Your task to perform on an android device: visit the assistant section in the google photos Image 0: 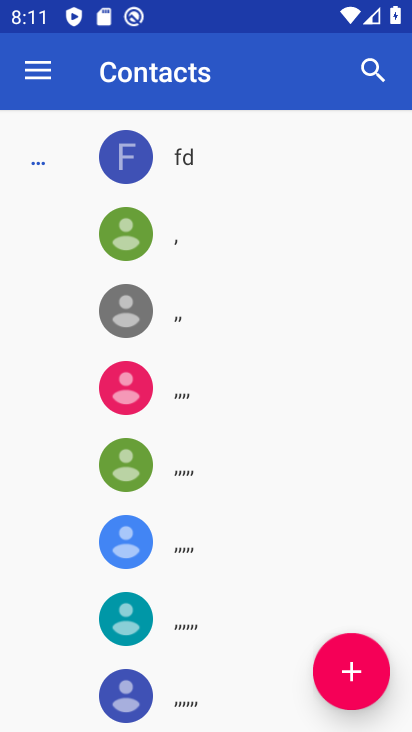
Step 0: press home button
Your task to perform on an android device: visit the assistant section in the google photos Image 1: 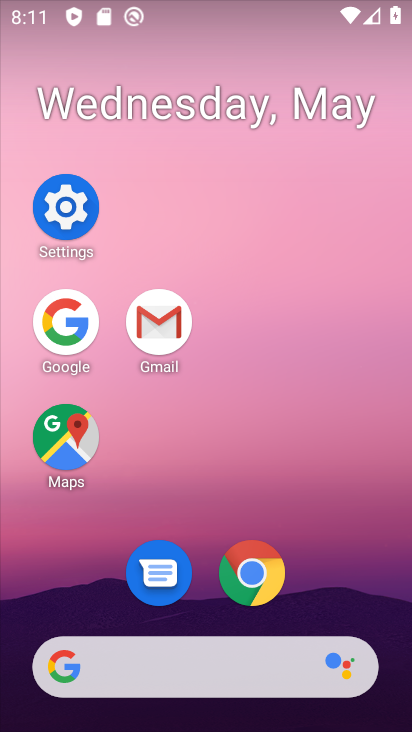
Step 1: drag from (308, 515) to (279, 176)
Your task to perform on an android device: visit the assistant section in the google photos Image 2: 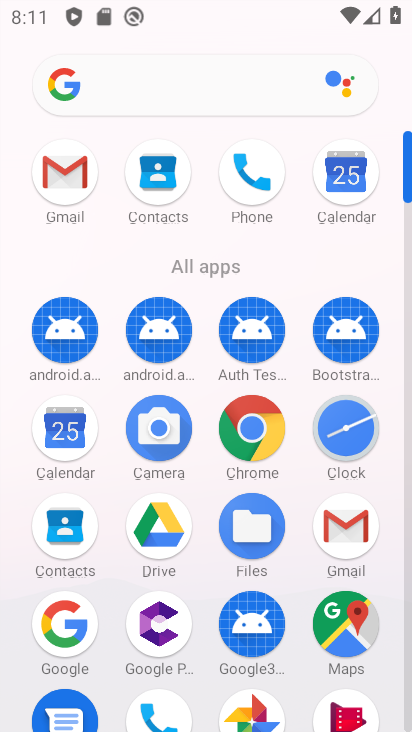
Step 2: drag from (277, 554) to (295, 206)
Your task to perform on an android device: visit the assistant section in the google photos Image 3: 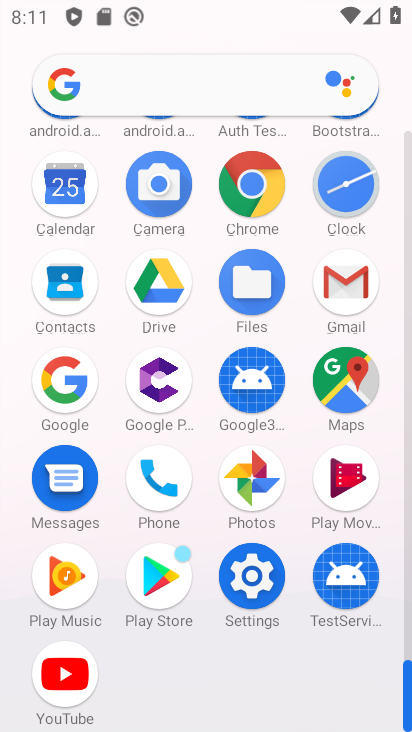
Step 3: drag from (262, 482) to (153, 376)
Your task to perform on an android device: visit the assistant section in the google photos Image 4: 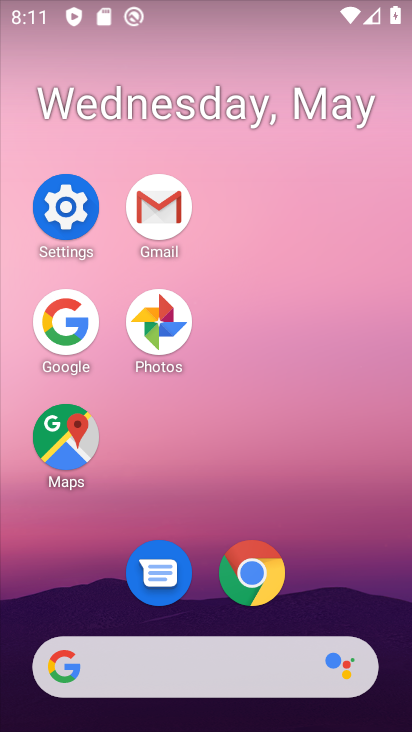
Step 4: click (174, 332)
Your task to perform on an android device: visit the assistant section in the google photos Image 5: 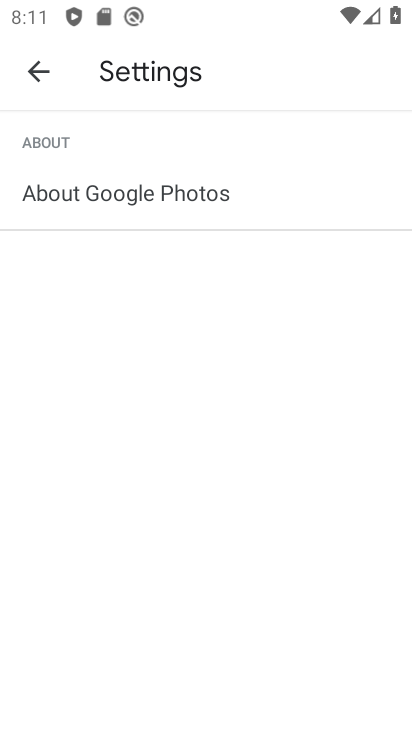
Step 5: click (28, 76)
Your task to perform on an android device: visit the assistant section in the google photos Image 6: 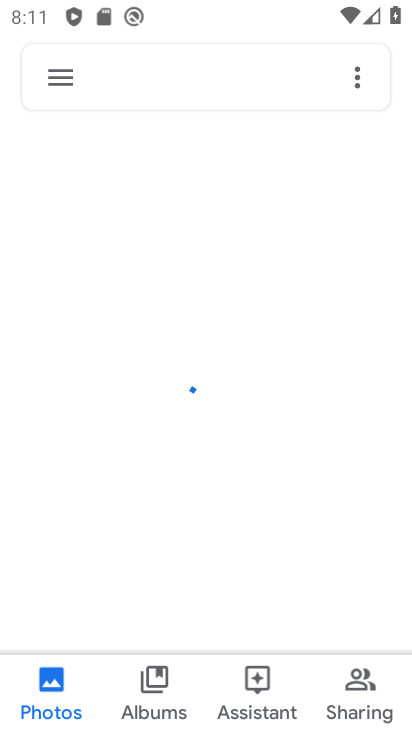
Step 6: click (270, 690)
Your task to perform on an android device: visit the assistant section in the google photos Image 7: 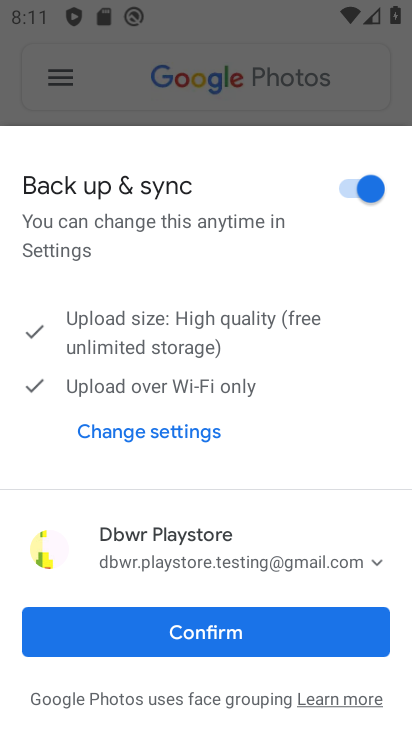
Step 7: click (205, 641)
Your task to perform on an android device: visit the assistant section in the google photos Image 8: 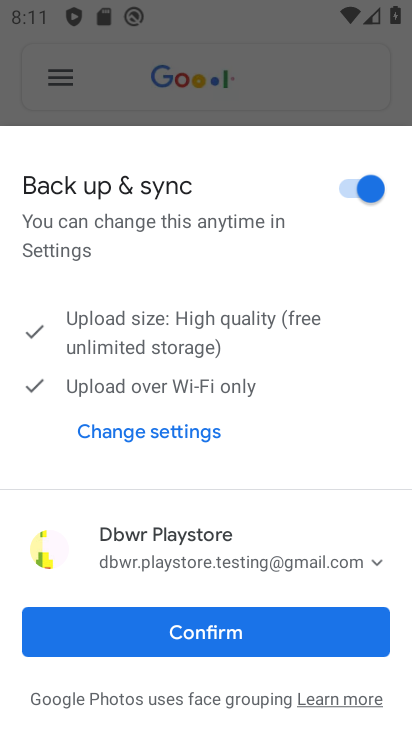
Step 8: click (329, 646)
Your task to perform on an android device: visit the assistant section in the google photos Image 9: 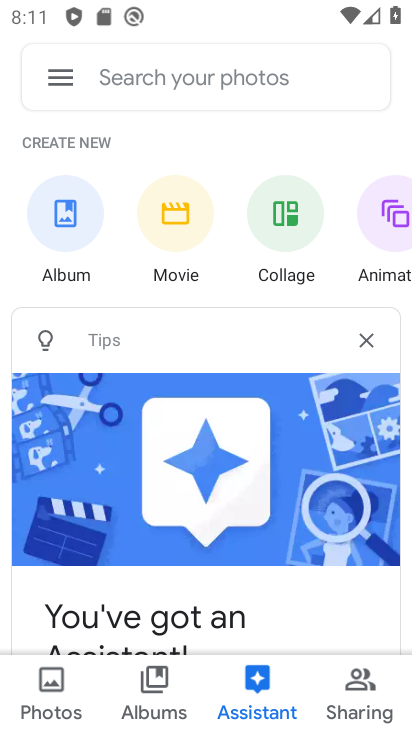
Step 9: task complete